Your task to perform on an android device: Go to location settings Image 0: 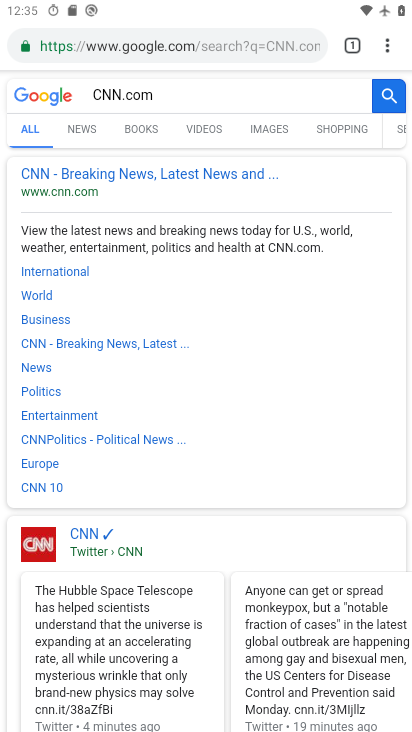
Step 0: press home button
Your task to perform on an android device: Go to location settings Image 1: 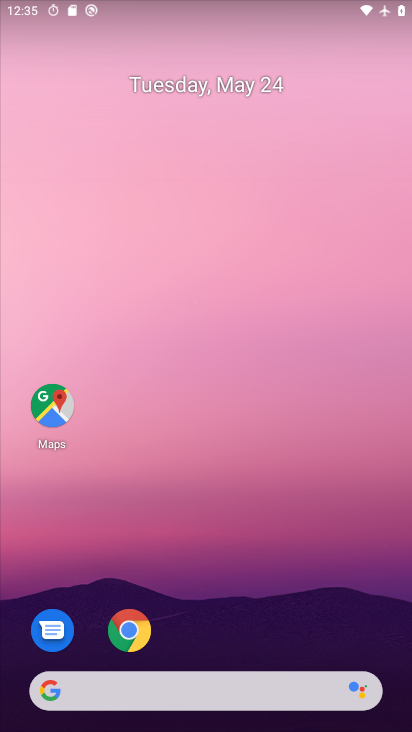
Step 1: drag from (228, 620) to (232, 110)
Your task to perform on an android device: Go to location settings Image 2: 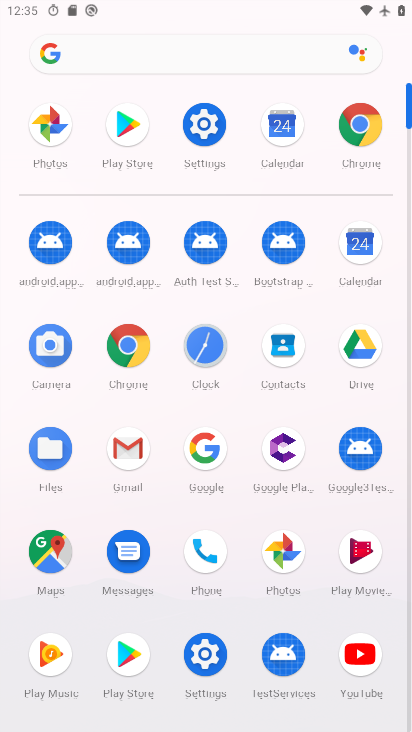
Step 2: click (215, 135)
Your task to perform on an android device: Go to location settings Image 3: 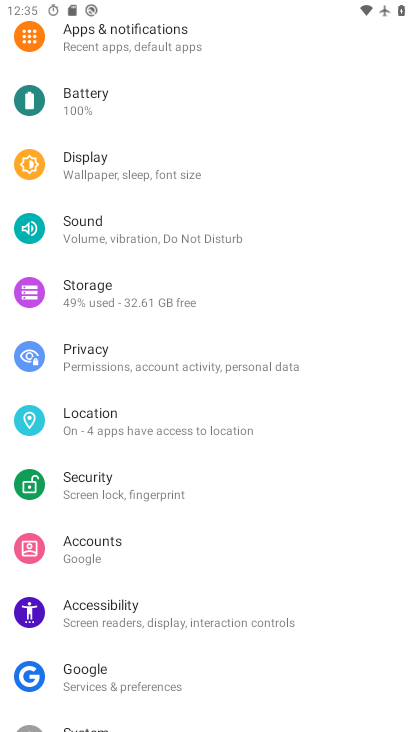
Step 3: click (151, 431)
Your task to perform on an android device: Go to location settings Image 4: 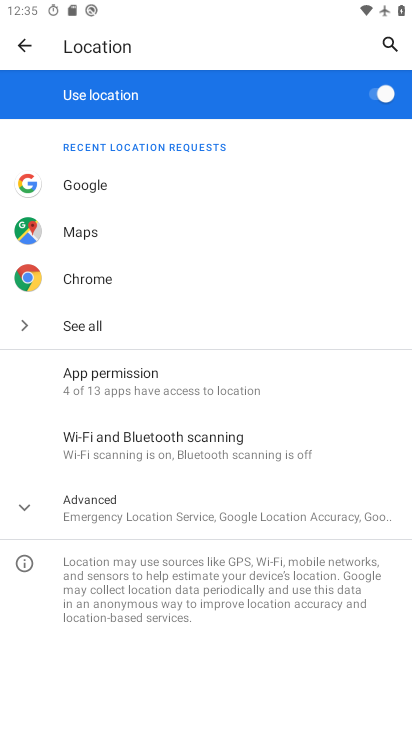
Step 4: task complete